Your task to perform on an android device: Open wifi settings Image 0: 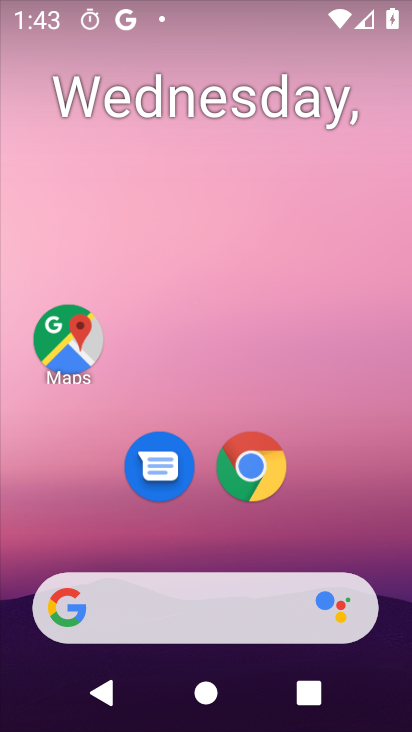
Step 0: drag from (311, 523) to (280, 18)
Your task to perform on an android device: Open wifi settings Image 1: 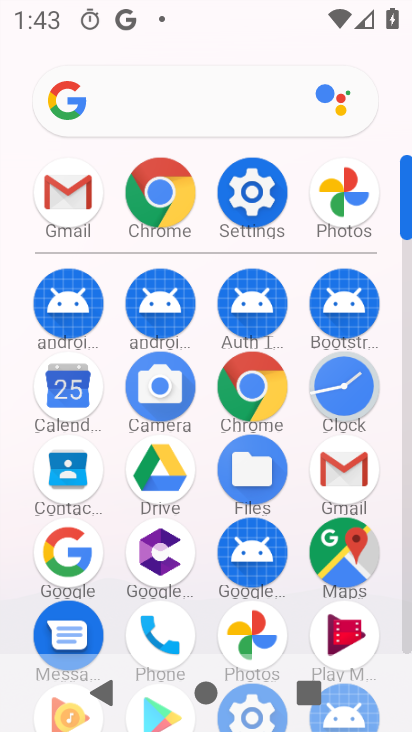
Step 1: click (228, 197)
Your task to perform on an android device: Open wifi settings Image 2: 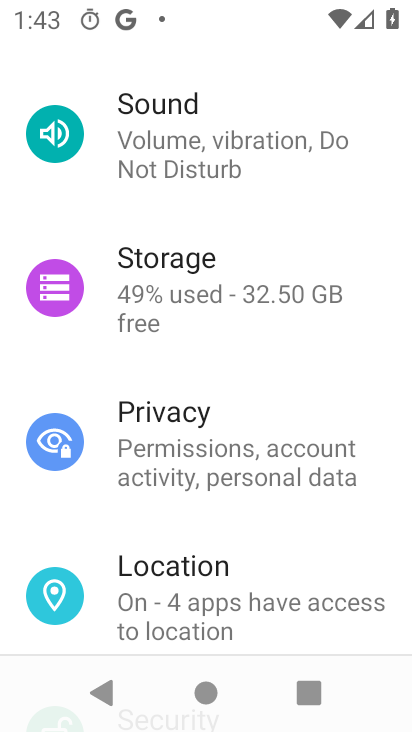
Step 2: drag from (231, 181) to (229, 483)
Your task to perform on an android device: Open wifi settings Image 3: 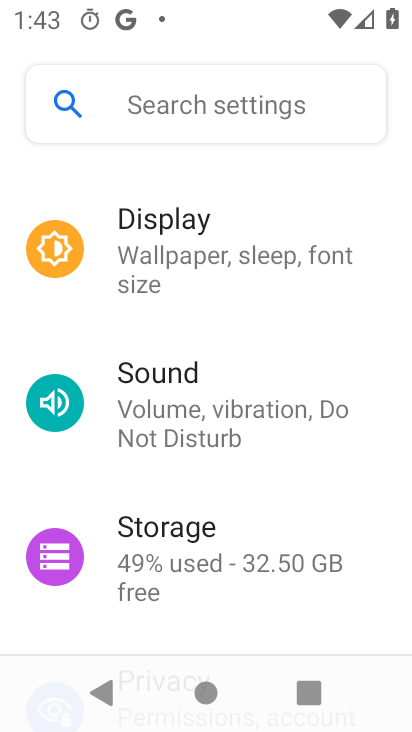
Step 3: drag from (218, 282) to (196, 529)
Your task to perform on an android device: Open wifi settings Image 4: 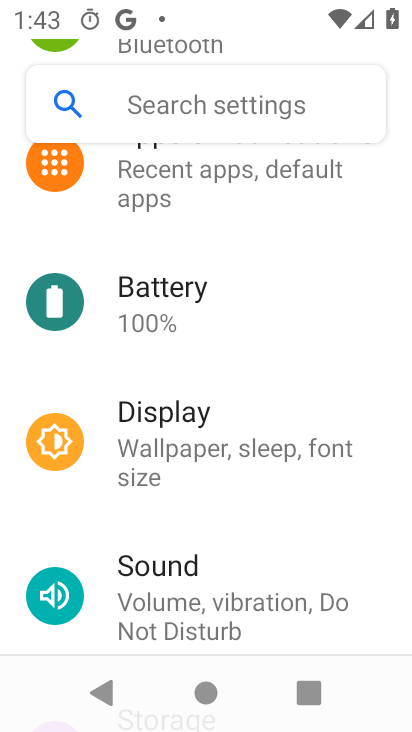
Step 4: drag from (208, 257) to (199, 515)
Your task to perform on an android device: Open wifi settings Image 5: 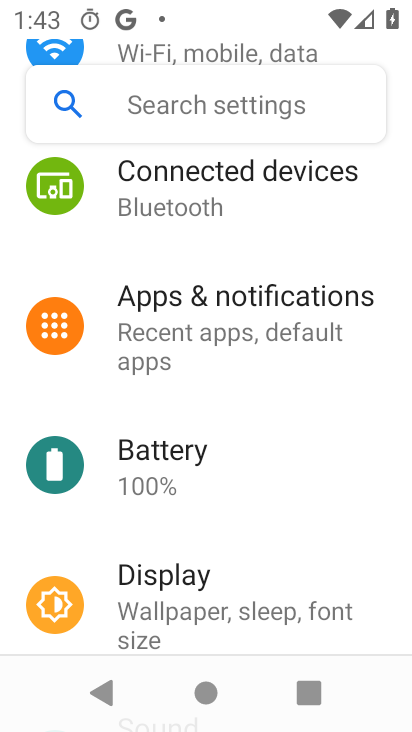
Step 5: drag from (283, 313) to (264, 526)
Your task to perform on an android device: Open wifi settings Image 6: 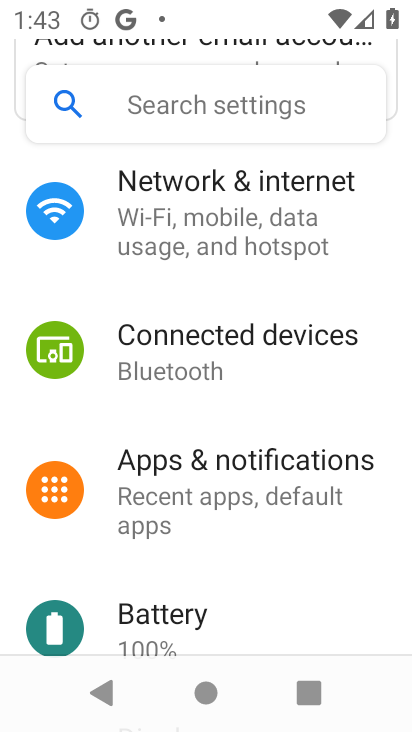
Step 6: click (257, 251)
Your task to perform on an android device: Open wifi settings Image 7: 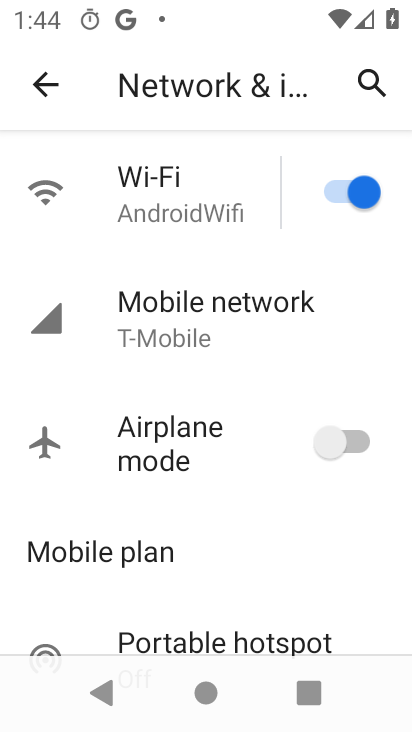
Step 7: click (126, 206)
Your task to perform on an android device: Open wifi settings Image 8: 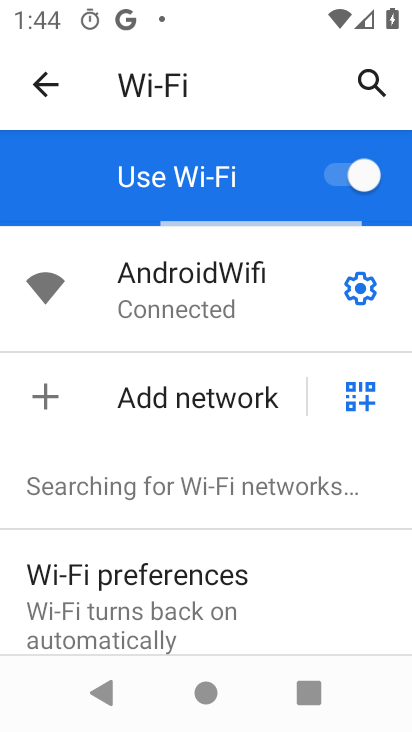
Step 8: task complete